Your task to perform on an android device: turn vacation reply on in the gmail app Image 0: 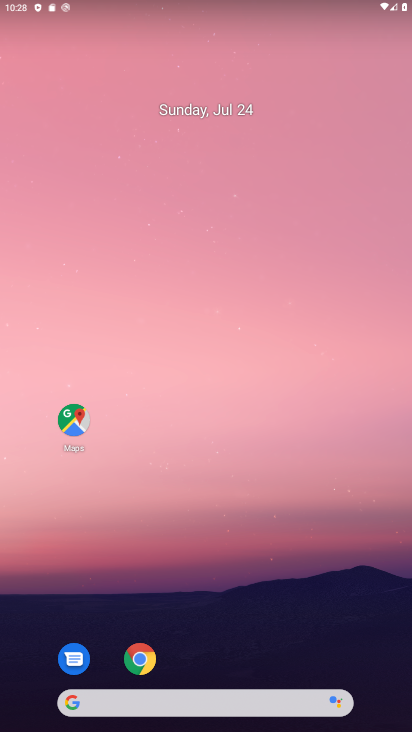
Step 0: drag from (280, 500) to (308, 6)
Your task to perform on an android device: turn vacation reply on in the gmail app Image 1: 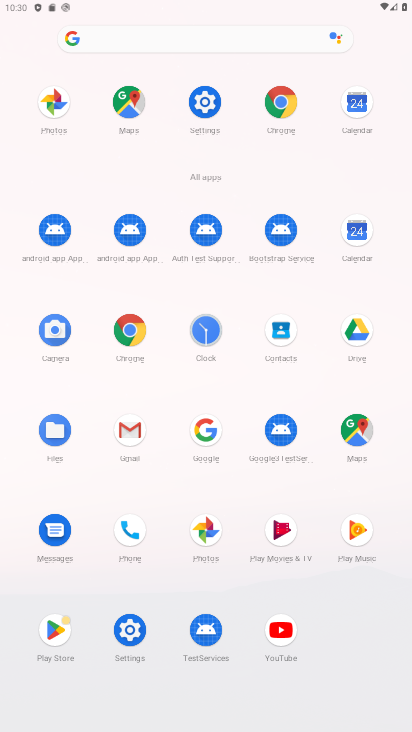
Step 1: click (116, 435)
Your task to perform on an android device: turn vacation reply on in the gmail app Image 2: 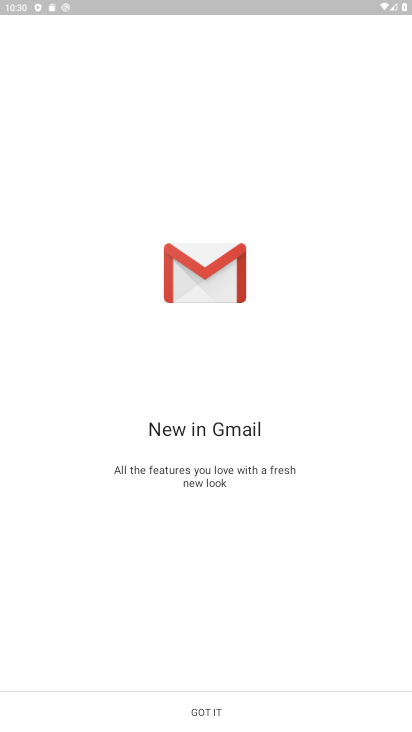
Step 2: click (225, 709)
Your task to perform on an android device: turn vacation reply on in the gmail app Image 3: 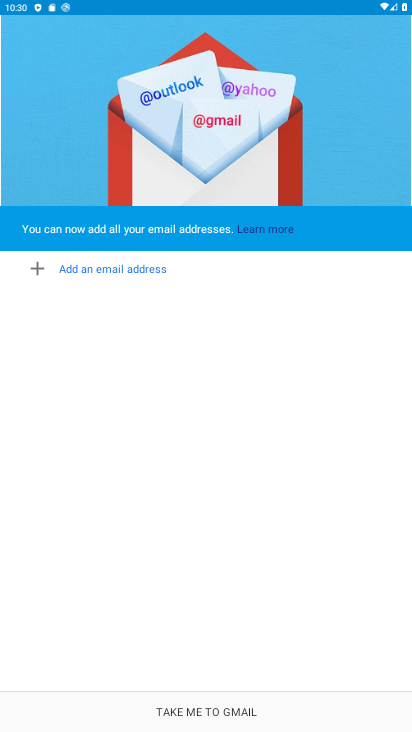
Step 3: click (225, 709)
Your task to perform on an android device: turn vacation reply on in the gmail app Image 4: 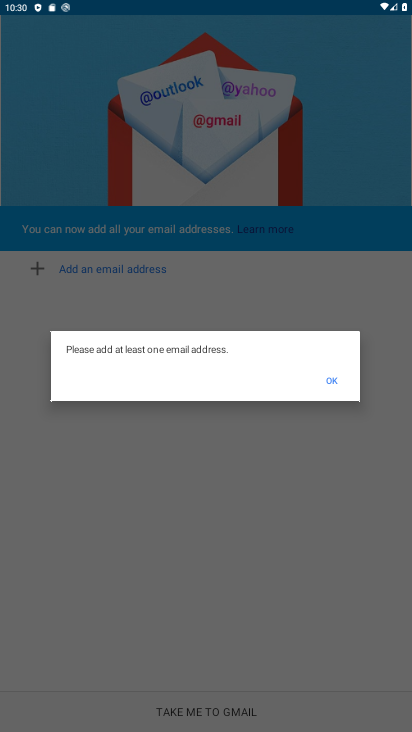
Step 4: task complete